Your task to perform on an android device: show emergency info Image 0: 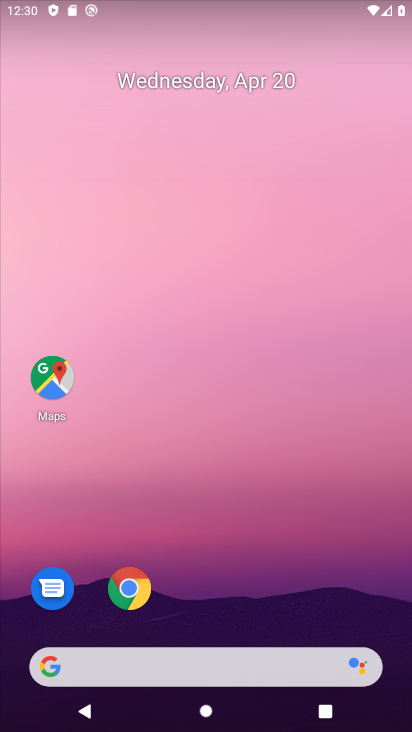
Step 0: click (275, 29)
Your task to perform on an android device: show emergency info Image 1: 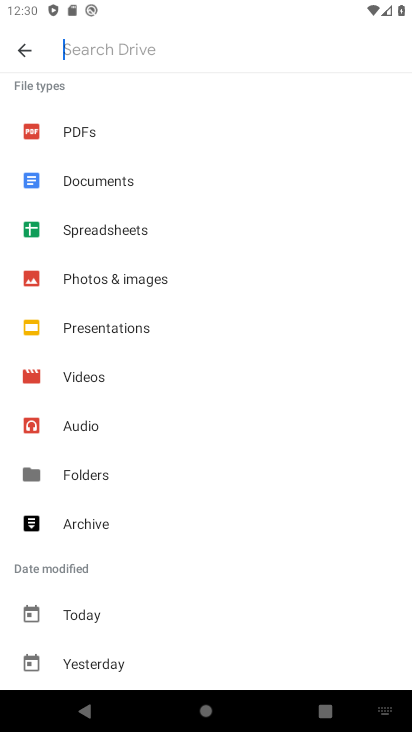
Step 1: press home button
Your task to perform on an android device: show emergency info Image 2: 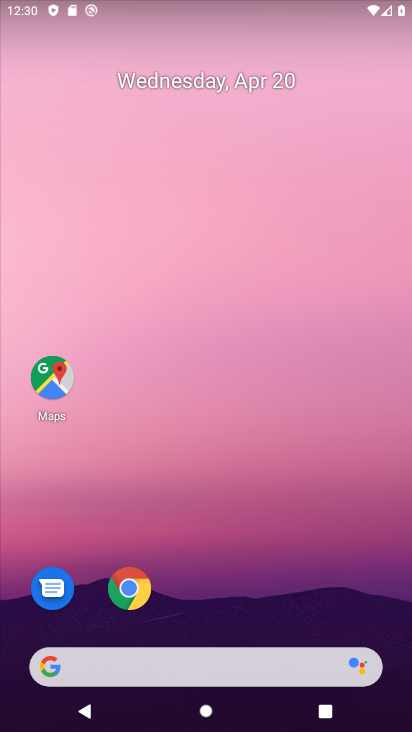
Step 2: drag from (205, 583) to (261, 284)
Your task to perform on an android device: show emergency info Image 3: 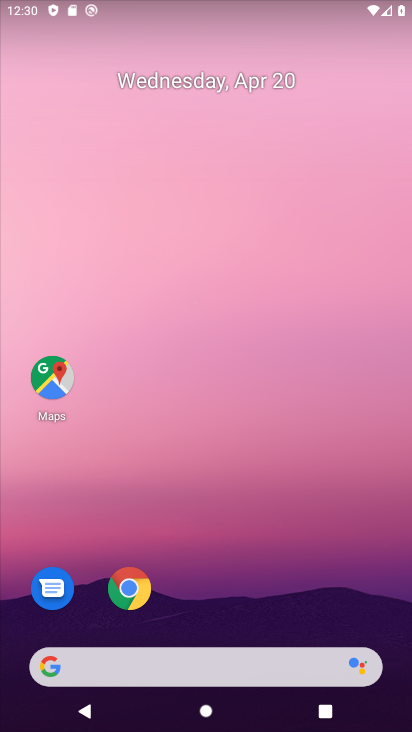
Step 3: drag from (208, 647) to (287, 193)
Your task to perform on an android device: show emergency info Image 4: 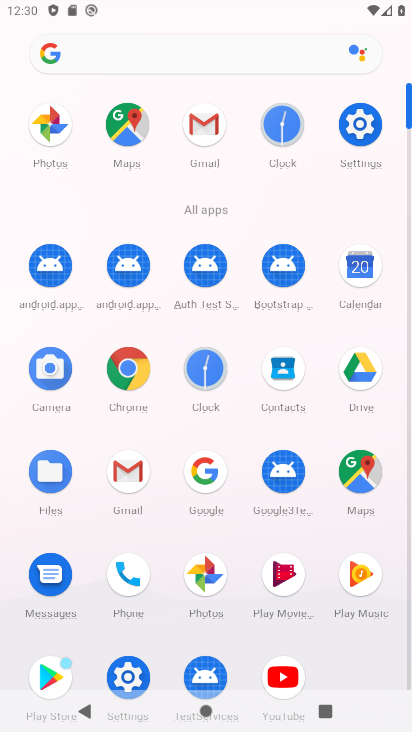
Step 4: click (365, 129)
Your task to perform on an android device: show emergency info Image 5: 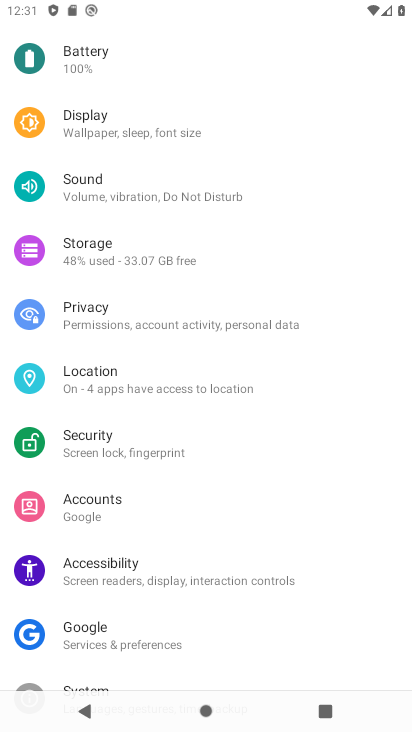
Step 5: drag from (122, 627) to (183, 210)
Your task to perform on an android device: show emergency info Image 6: 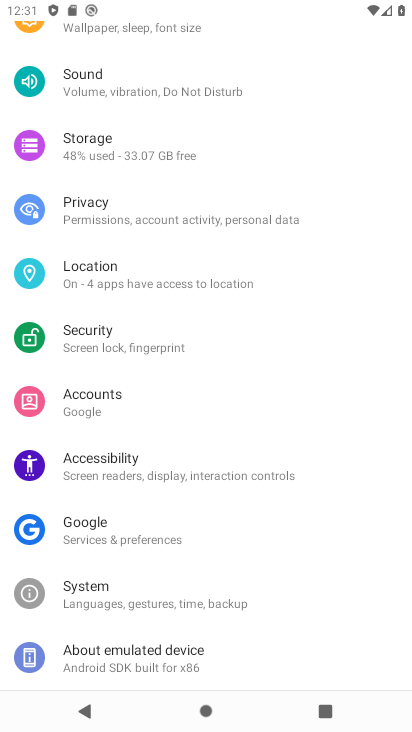
Step 6: click (123, 670)
Your task to perform on an android device: show emergency info Image 7: 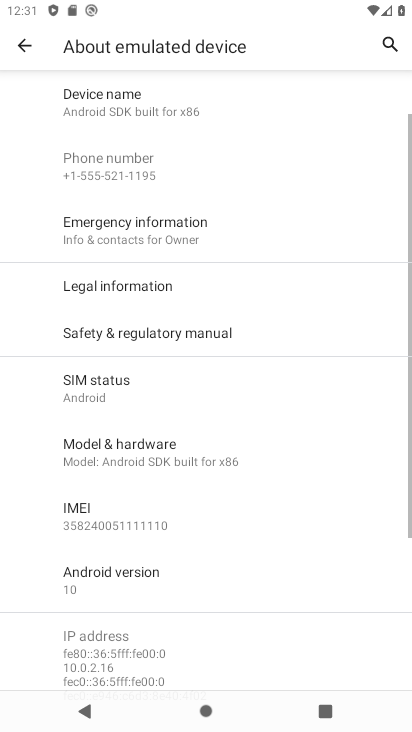
Step 7: click (184, 217)
Your task to perform on an android device: show emergency info Image 8: 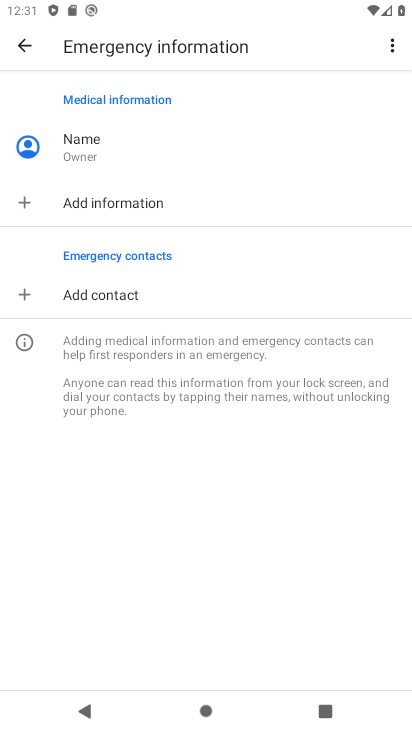
Step 8: task complete